Your task to perform on an android device: turn off location Image 0: 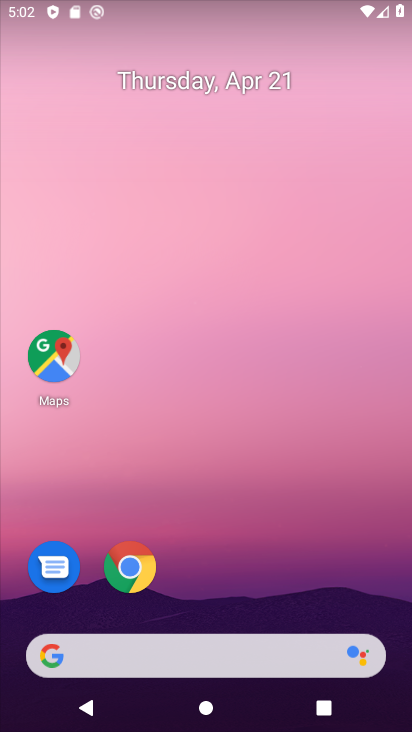
Step 0: drag from (245, 379) to (360, 352)
Your task to perform on an android device: turn off location Image 1: 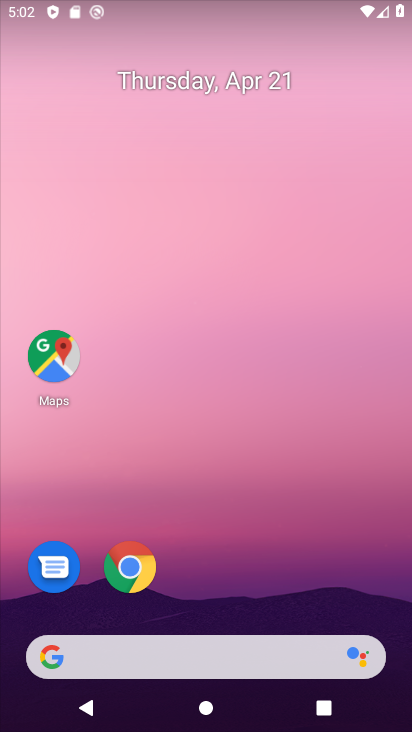
Step 1: drag from (226, 576) to (278, 19)
Your task to perform on an android device: turn off location Image 2: 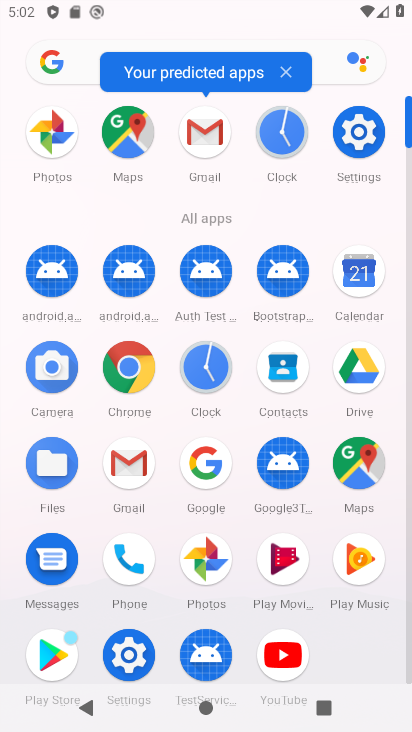
Step 2: click (366, 131)
Your task to perform on an android device: turn off location Image 3: 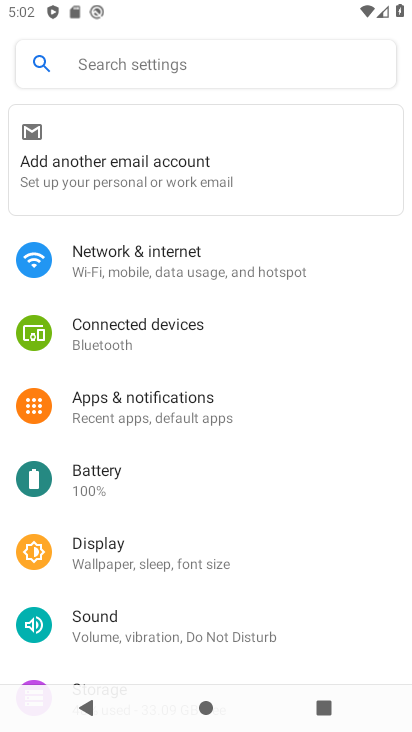
Step 3: drag from (114, 576) to (155, 307)
Your task to perform on an android device: turn off location Image 4: 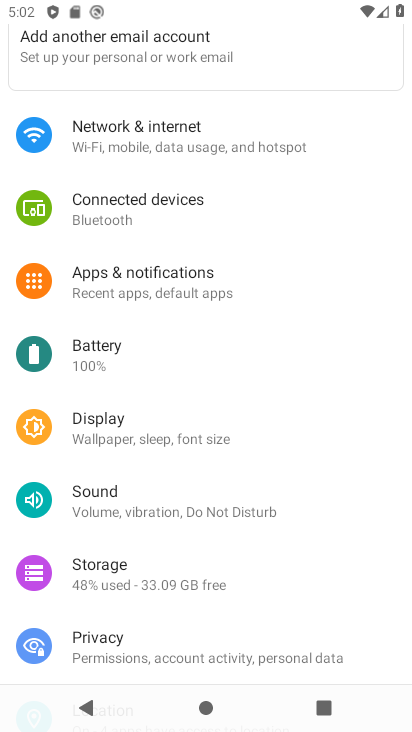
Step 4: drag from (131, 573) to (220, 206)
Your task to perform on an android device: turn off location Image 5: 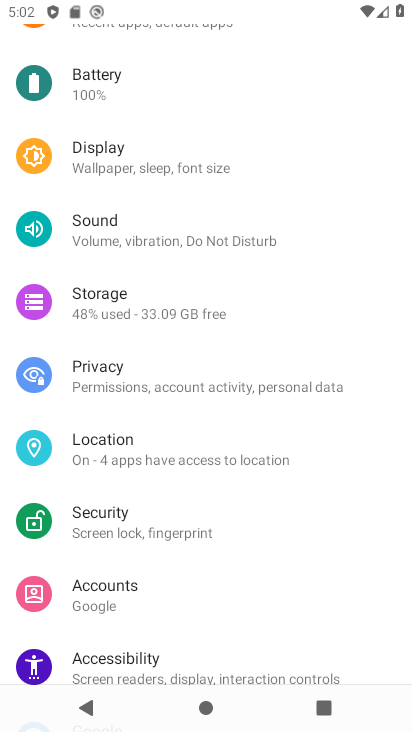
Step 5: click (121, 435)
Your task to perform on an android device: turn off location Image 6: 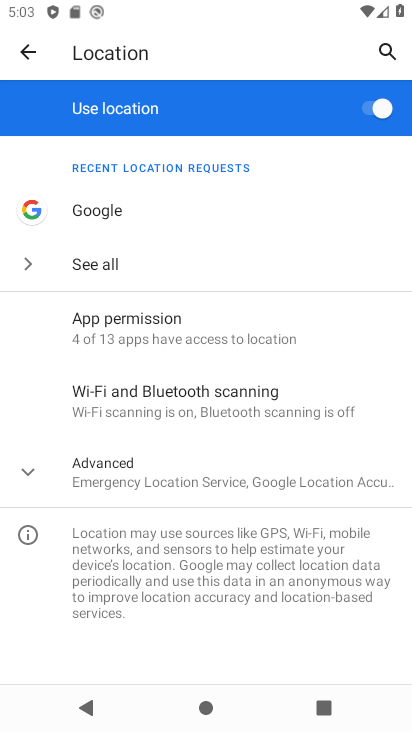
Step 6: click (369, 102)
Your task to perform on an android device: turn off location Image 7: 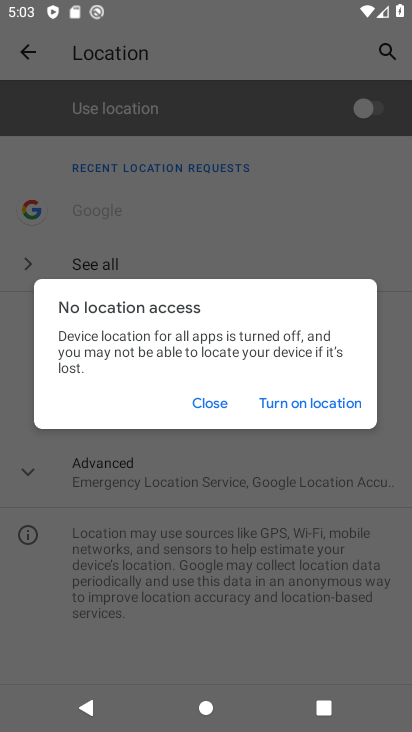
Step 7: task complete